Your task to perform on an android device: set default search engine in the chrome app Image 0: 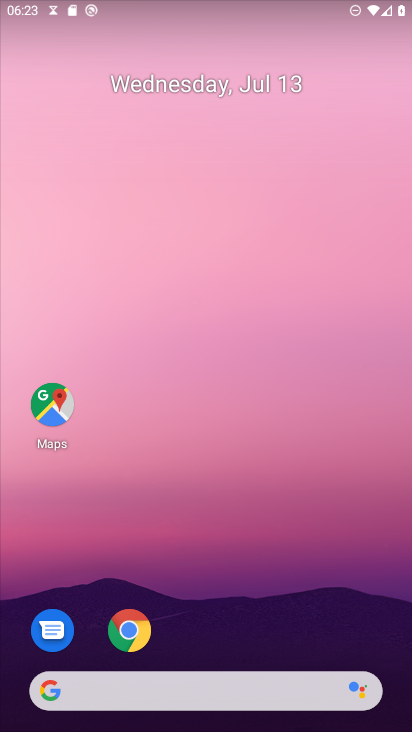
Step 0: drag from (287, 684) to (290, 36)
Your task to perform on an android device: set default search engine in the chrome app Image 1: 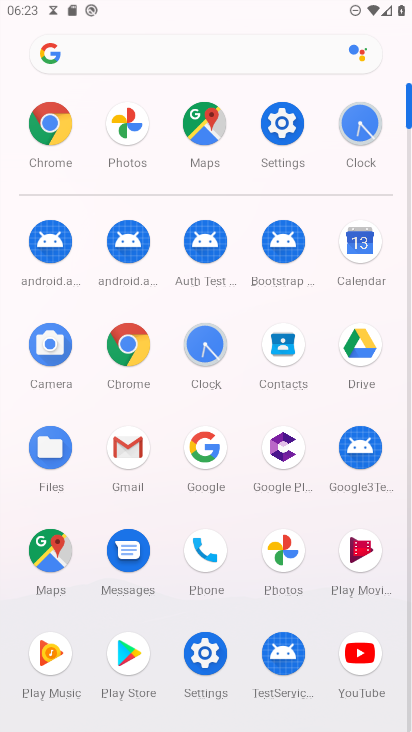
Step 1: click (124, 349)
Your task to perform on an android device: set default search engine in the chrome app Image 2: 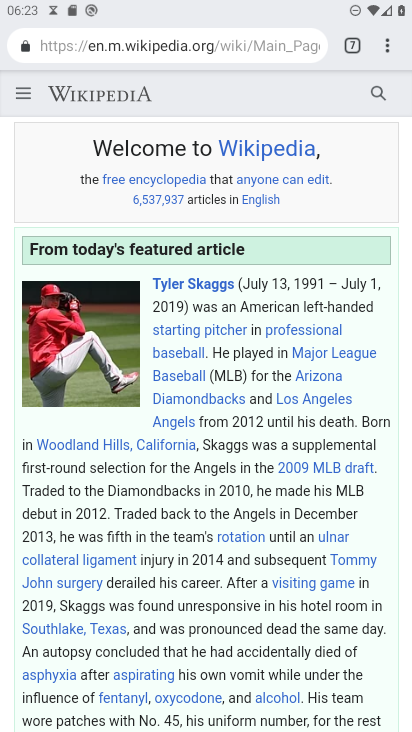
Step 2: drag from (392, 44) to (265, 558)
Your task to perform on an android device: set default search engine in the chrome app Image 3: 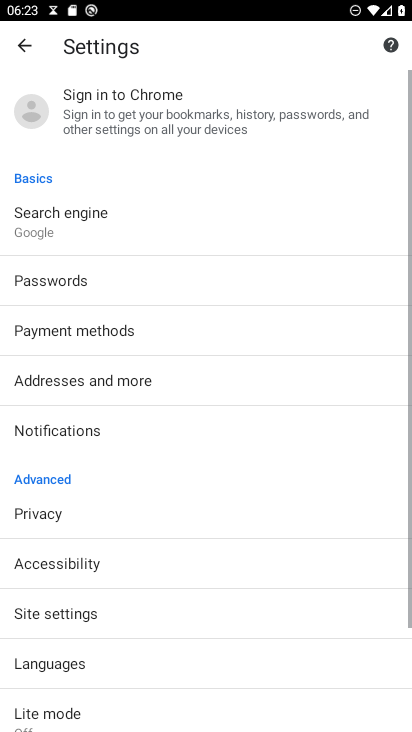
Step 3: click (88, 212)
Your task to perform on an android device: set default search engine in the chrome app Image 4: 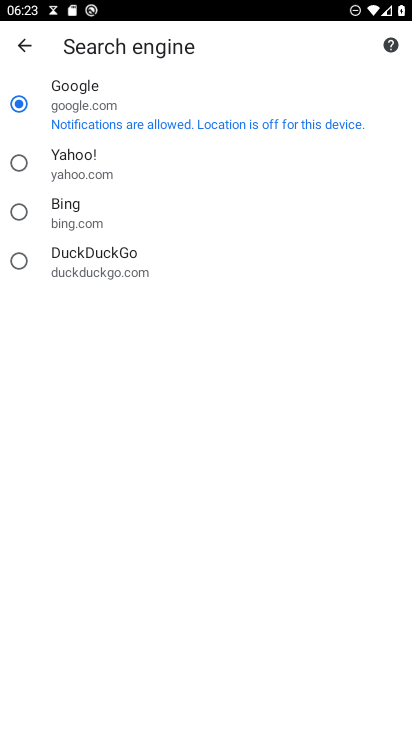
Step 4: task complete